Your task to perform on an android device: Open Google Chrome and click the shortcut for Amazon.com Image 0: 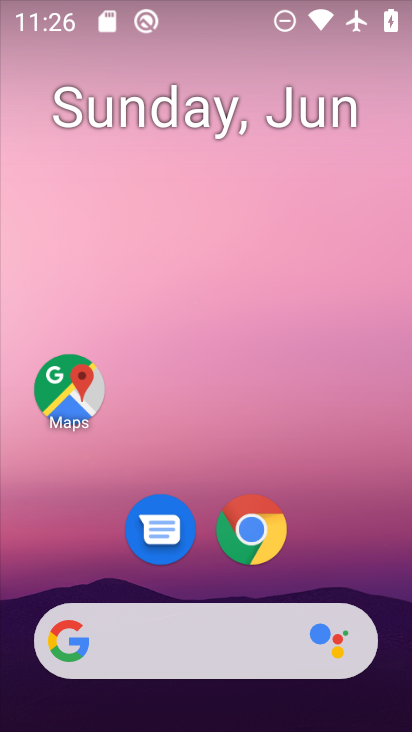
Step 0: click (250, 531)
Your task to perform on an android device: Open Google Chrome and click the shortcut for Amazon.com Image 1: 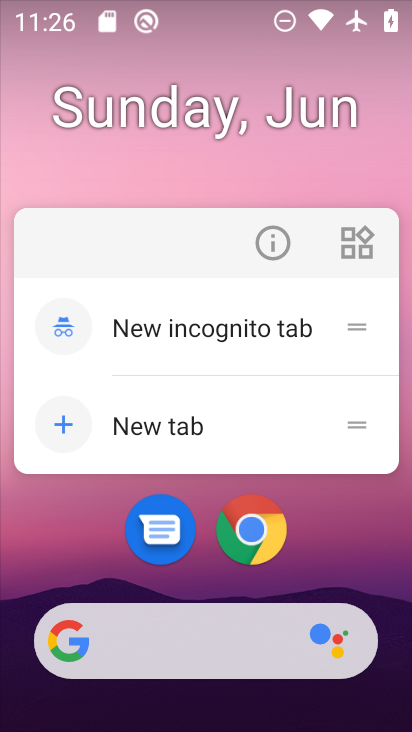
Step 1: click (250, 531)
Your task to perform on an android device: Open Google Chrome and click the shortcut for Amazon.com Image 2: 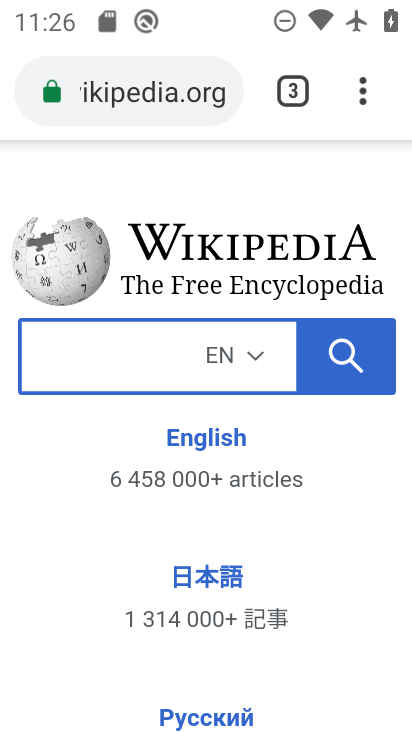
Step 2: click (357, 99)
Your task to perform on an android device: Open Google Chrome and click the shortcut for Amazon.com Image 3: 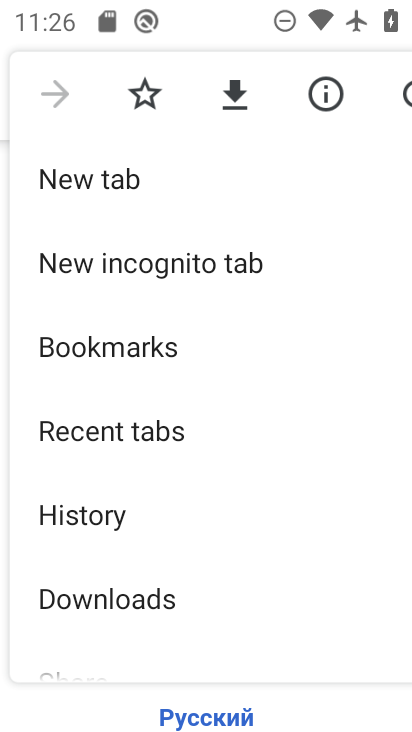
Step 3: click (79, 166)
Your task to perform on an android device: Open Google Chrome and click the shortcut for Amazon.com Image 4: 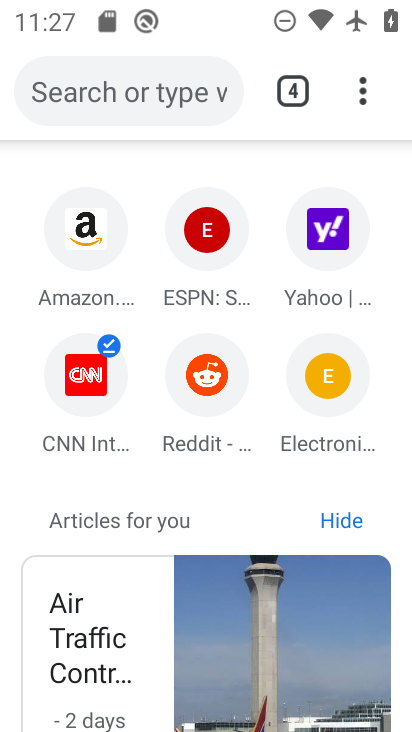
Step 4: click (89, 222)
Your task to perform on an android device: Open Google Chrome and click the shortcut for Amazon.com Image 5: 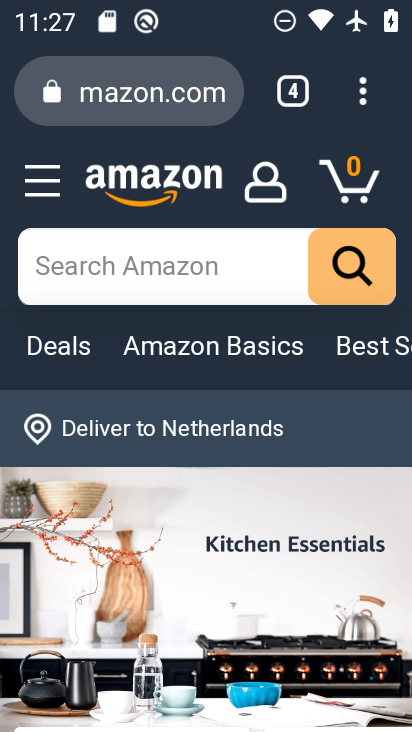
Step 5: task complete